Your task to perform on an android device: Search for vegetarian restaurants on Maps Image 0: 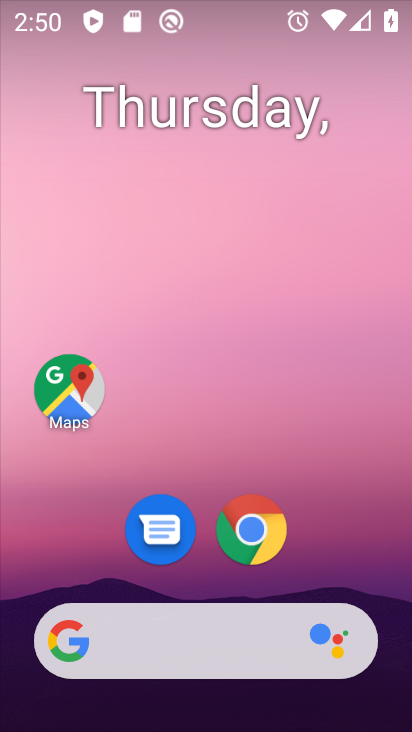
Step 0: click (63, 393)
Your task to perform on an android device: Search for vegetarian restaurants on Maps Image 1: 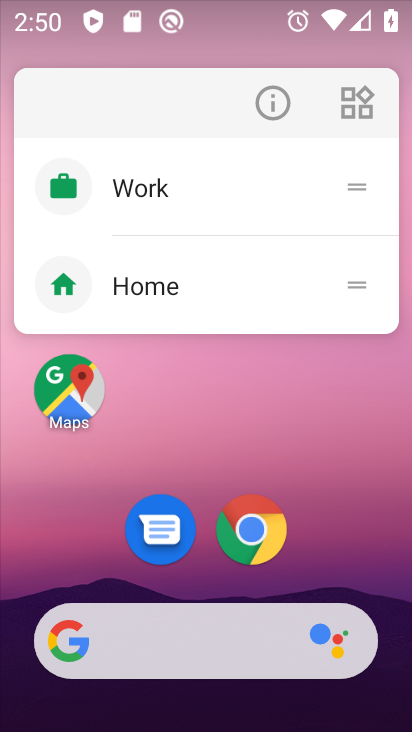
Step 1: click (91, 409)
Your task to perform on an android device: Search for vegetarian restaurants on Maps Image 2: 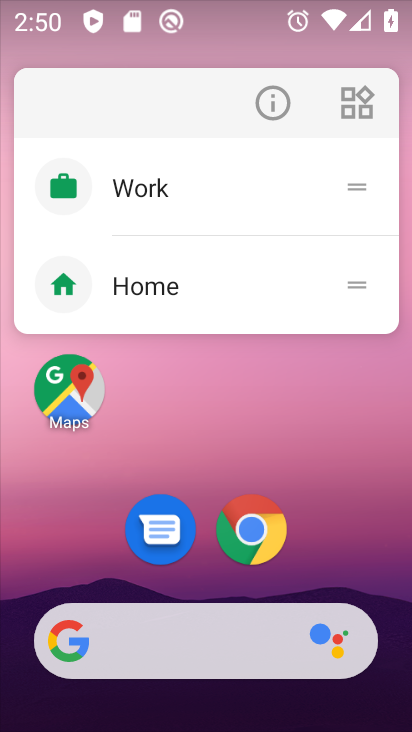
Step 2: click (91, 409)
Your task to perform on an android device: Search for vegetarian restaurants on Maps Image 3: 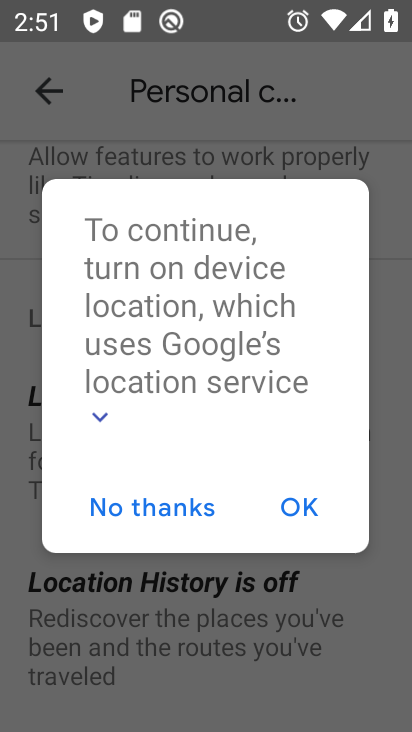
Step 3: press home button
Your task to perform on an android device: Search for vegetarian restaurants on Maps Image 4: 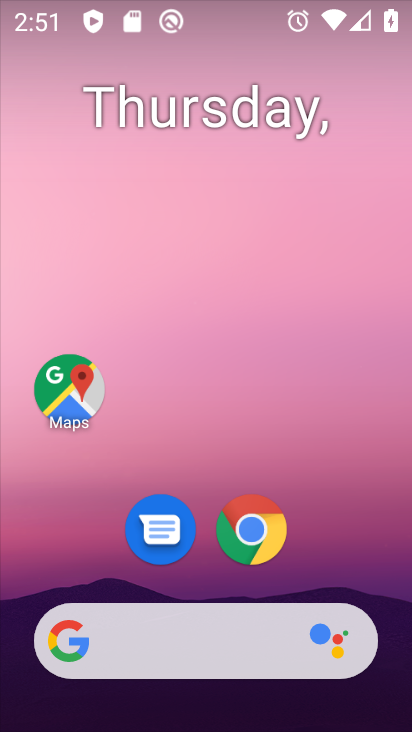
Step 4: click (71, 399)
Your task to perform on an android device: Search for vegetarian restaurants on Maps Image 5: 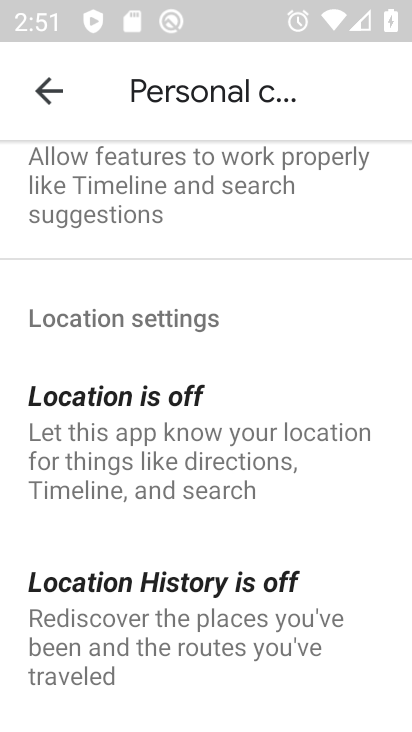
Step 5: drag from (270, 597) to (299, 155)
Your task to perform on an android device: Search for vegetarian restaurants on Maps Image 6: 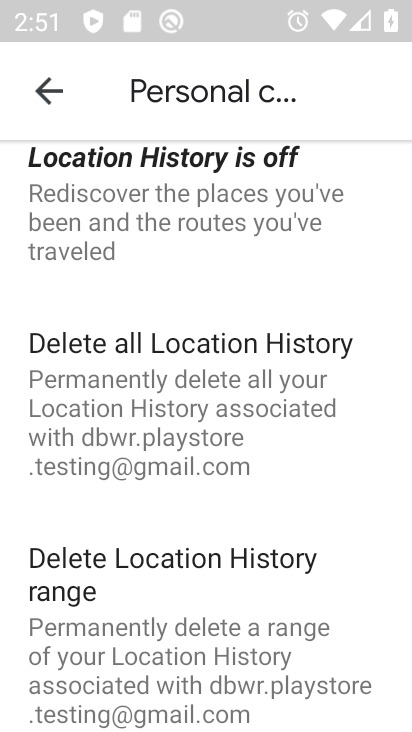
Step 6: click (55, 90)
Your task to perform on an android device: Search for vegetarian restaurants on Maps Image 7: 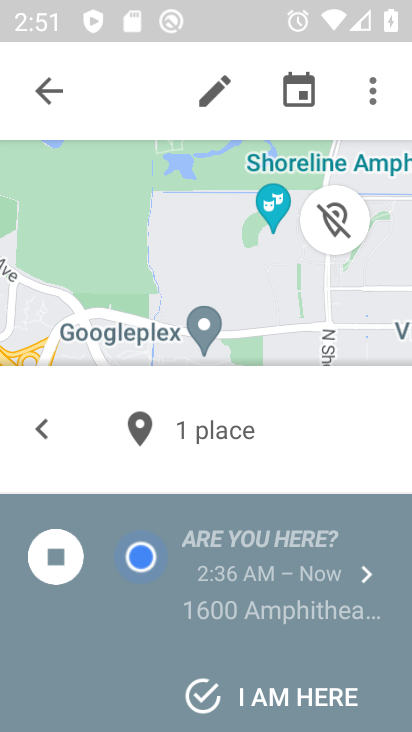
Step 7: click (55, 90)
Your task to perform on an android device: Search for vegetarian restaurants on Maps Image 8: 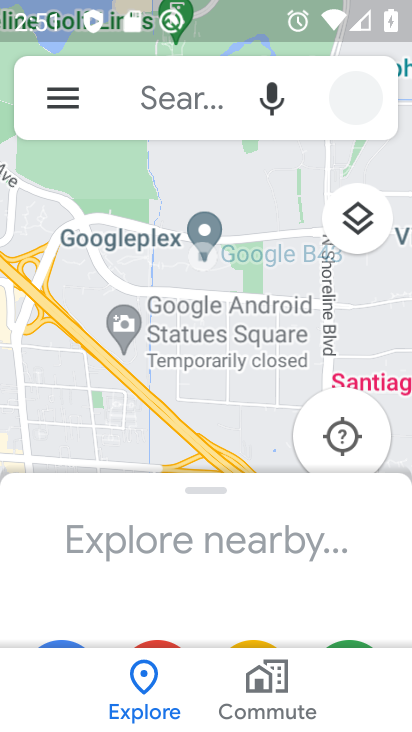
Step 8: click (180, 85)
Your task to perform on an android device: Search for vegetarian restaurants on Maps Image 9: 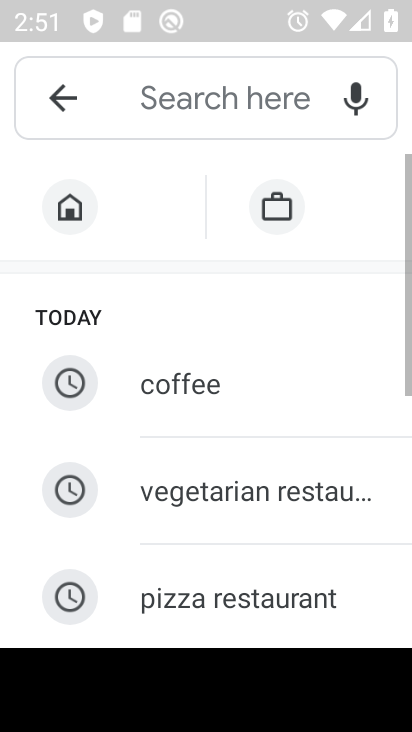
Step 9: click (294, 482)
Your task to perform on an android device: Search for vegetarian restaurants on Maps Image 10: 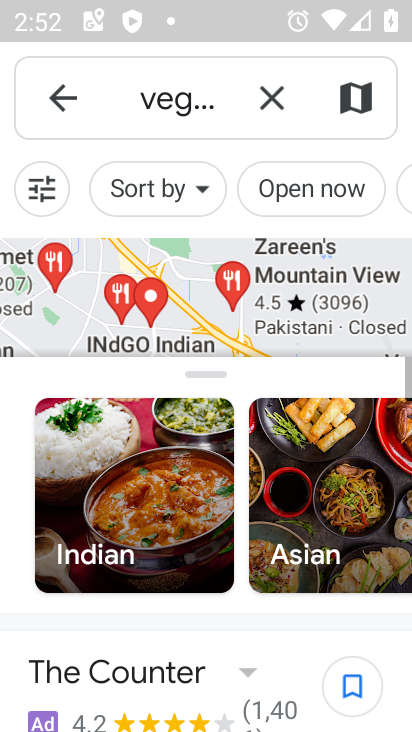
Step 10: task complete